Your task to perform on an android device: Open Google Chrome and click the shortcut for Amazon.com Image 0: 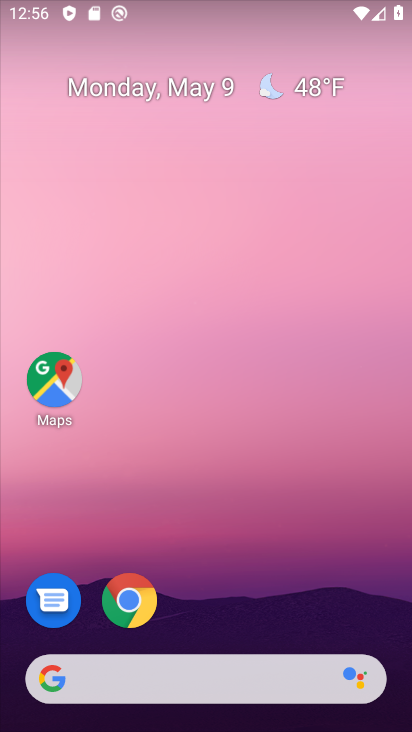
Step 0: click (133, 606)
Your task to perform on an android device: Open Google Chrome and click the shortcut for Amazon.com Image 1: 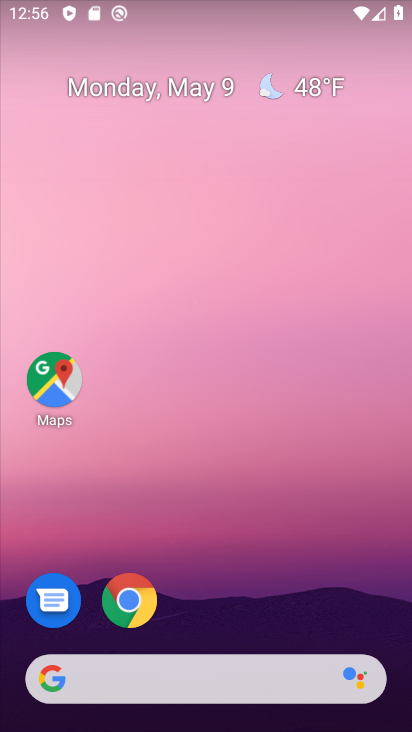
Step 1: click (133, 606)
Your task to perform on an android device: Open Google Chrome and click the shortcut for Amazon.com Image 2: 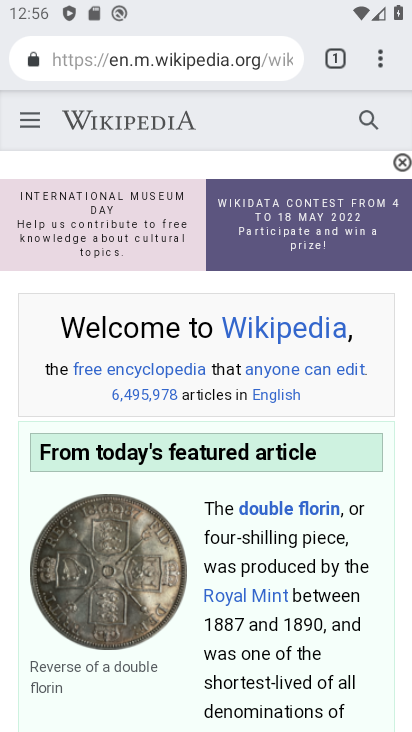
Step 2: click (334, 66)
Your task to perform on an android device: Open Google Chrome and click the shortcut for Amazon.com Image 3: 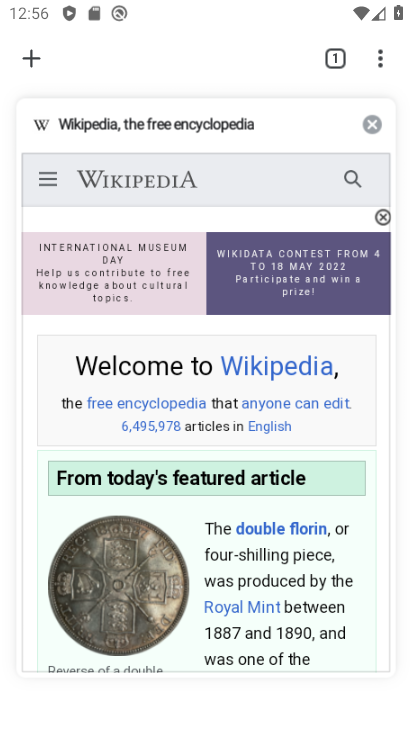
Step 3: click (39, 55)
Your task to perform on an android device: Open Google Chrome and click the shortcut for Amazon.com Image 4: 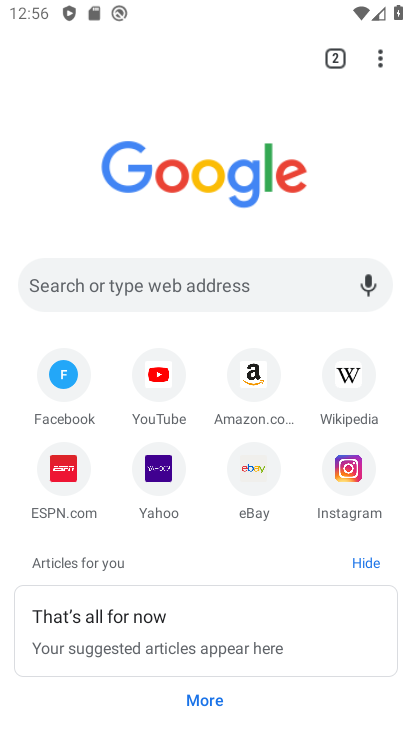
Step 4: click (257, 391)
Your task to perform on an android device: Open Google Chrome and click the shortcut for Amazon.com Image 5: 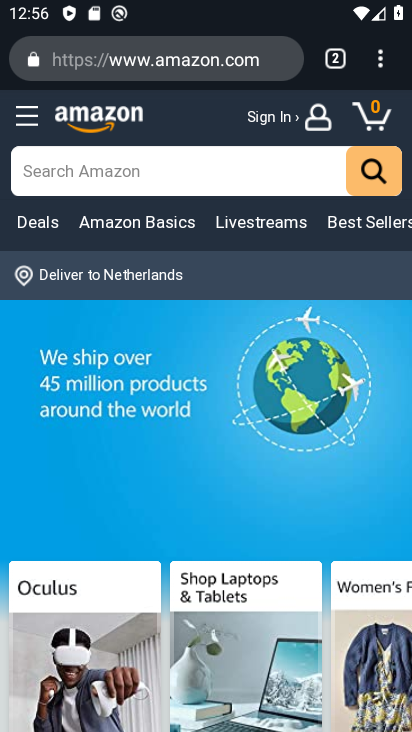
Step 5: task complete